Your task to perform on an android device: change the clock display to analog Image 0: 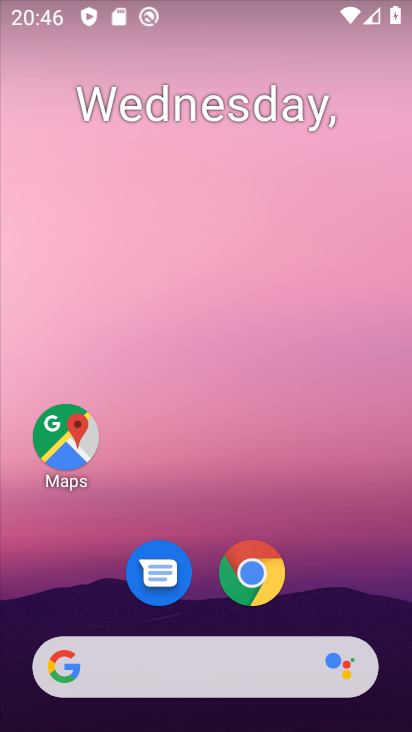
Step 0: drag from (363, 556) to (331, 103)
Your task to perform on an android device: change the clock display to analog Image 1: 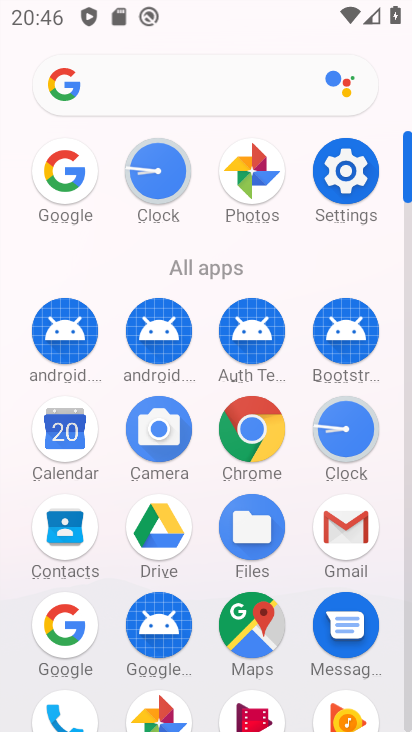
Step 1: click (347, 432)
Your task to perform on an android device: change the clock display to analog Image 2: 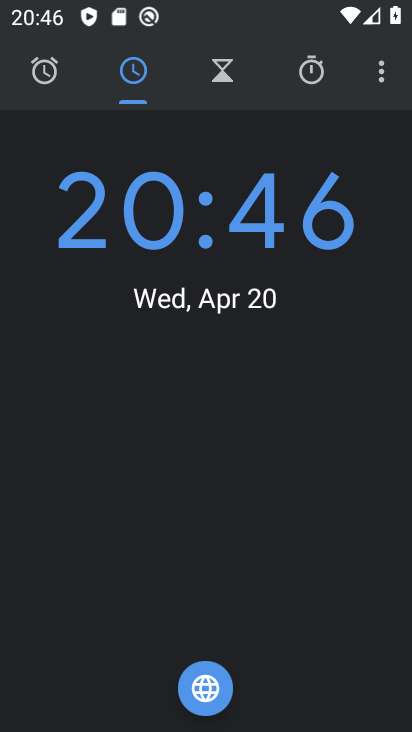
Step 2: click (379, 64)
Your task to perform on an android device: change the clock display to analog Image 3: 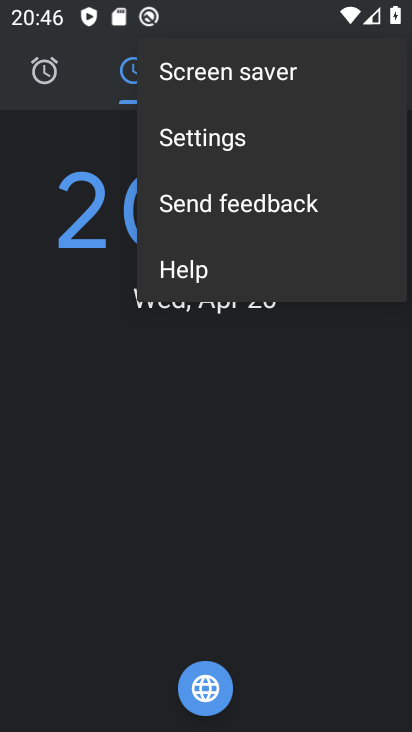
Step 3: click (234, 139)
Your task to perform on an android device: change the clock display to analog Image 4: 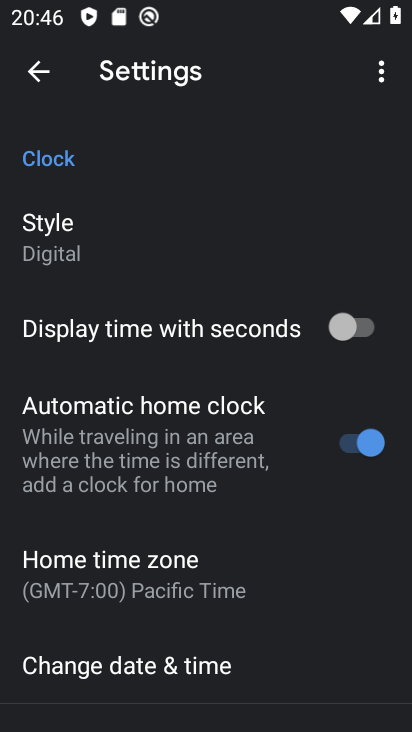
Step 4: click (62, 243)
Your task to perform on an android device: change the clock display to analog Image 5: 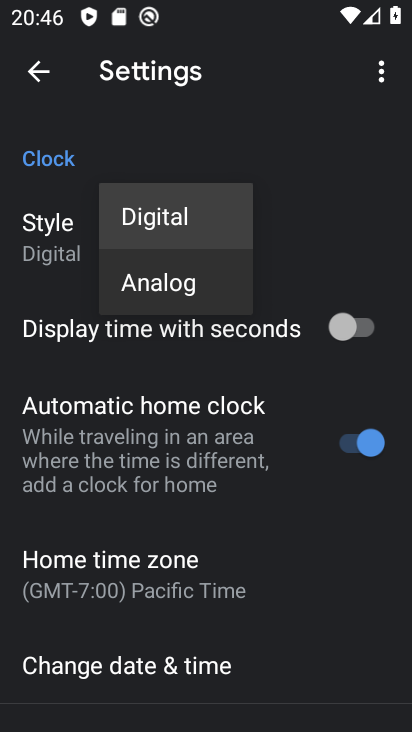
Step 5: click (140, 280)
Your task to perform on an android device: change the clock display to analog Image 6: 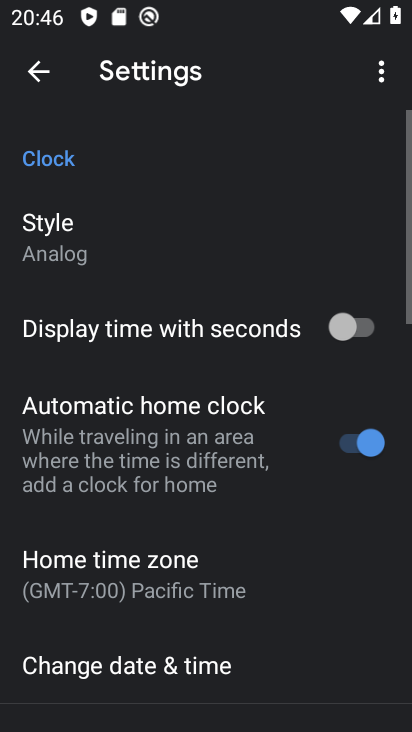
Step 6: task complete